Your task to perform on an android device: Open Maps and search for coffee Image 0: 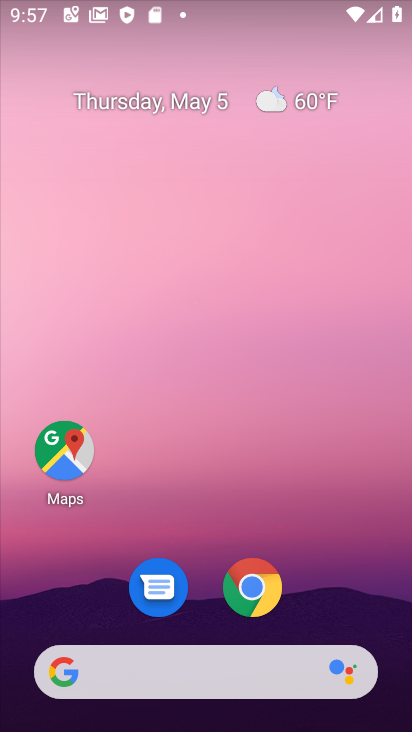
Step 0: click (72, 467)
Your task to perform on an android device: Open Maps and search for coffee Image 1: 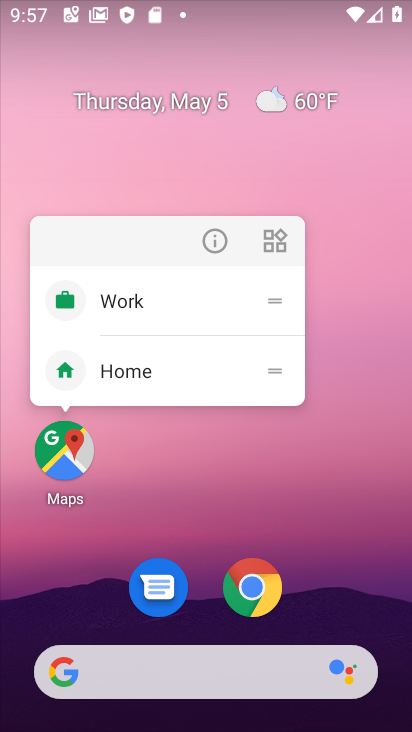
Step 1: click (58, 451)
Your task to perform on an android device: Open Maps and search for coffee Image 2: 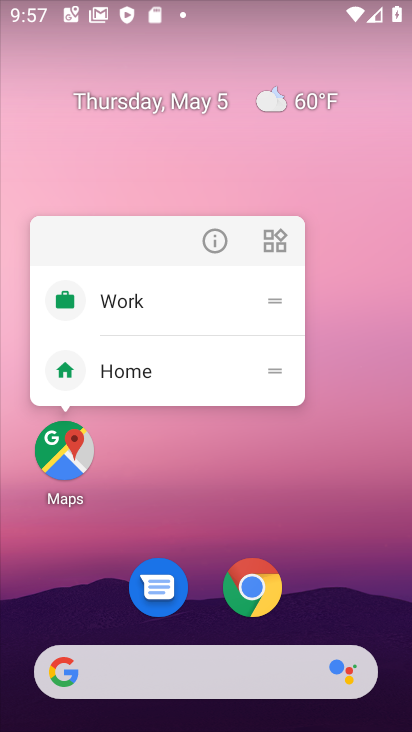
Step 2: click (58, 446)
Your task to perform on an android device: Open Maps and search for coffee Image 3: 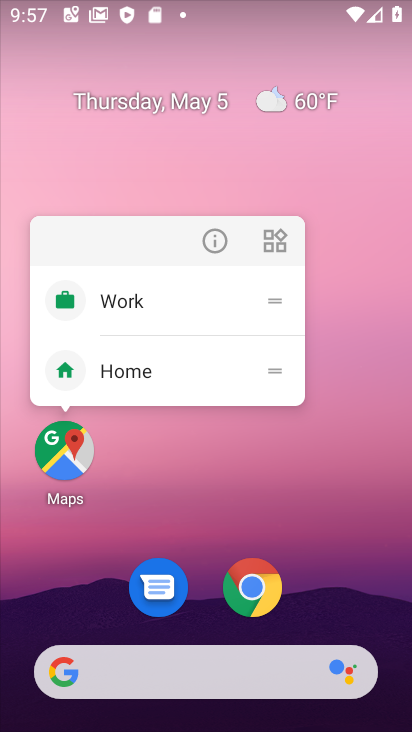
Step 3: click (53, 469)
Your task to perform on an android device: Open Maps and search for coffee Image 4: 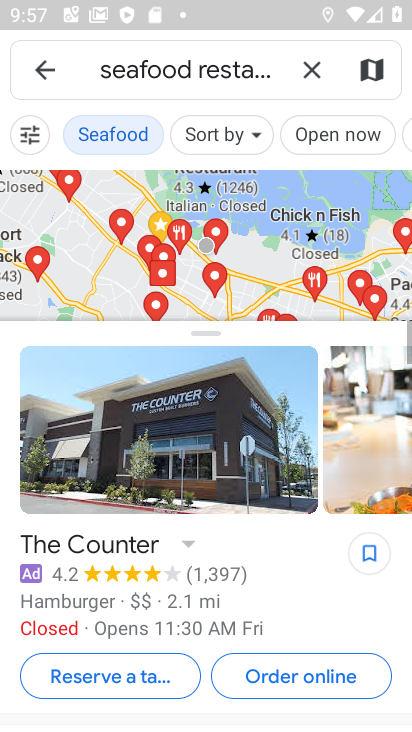
Step 4: click (308, 72)
Your task to perform on an android device: Open Maps and search for coffee Image 5: 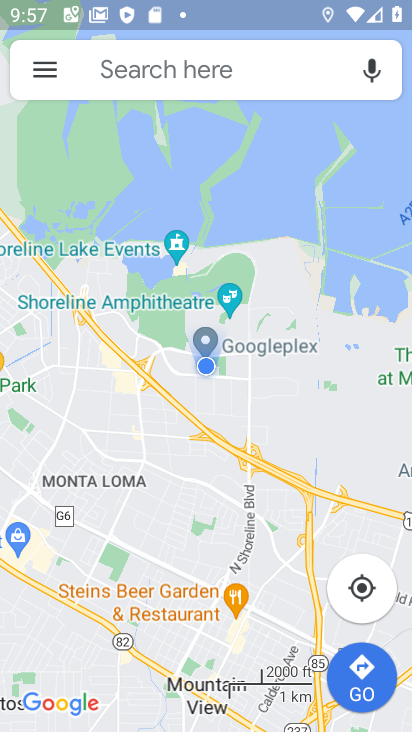
Step 5: click (262, 79)
Your task to perform on an android device: Open Maps and search for coffee Image 6: 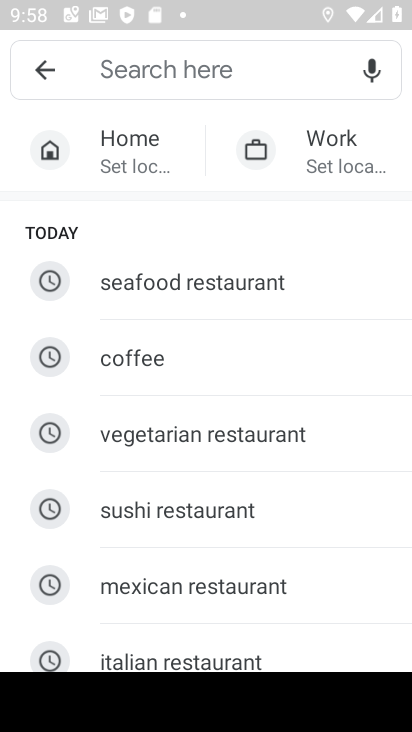
Step 6: type "coffee "
Your task to perform on an android device: Open Maps and search for coffee Image 7: 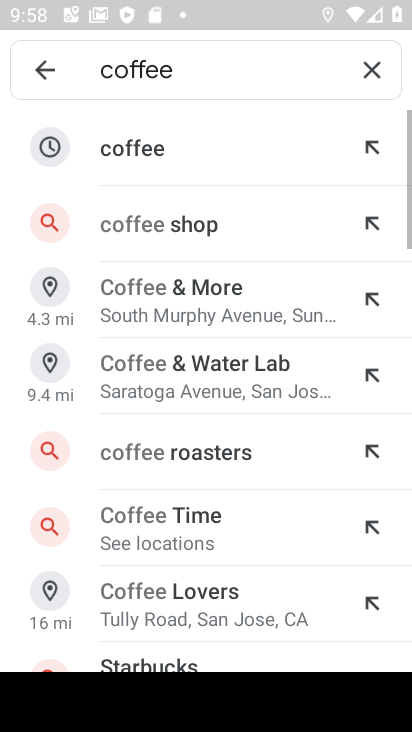
Step 7: click (152, 168)
Your task to perform on an android device: Open Maps and search for coffee Image 8: 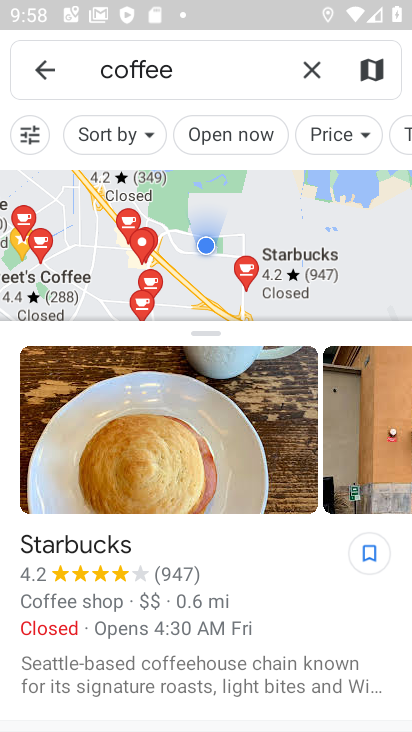
Step 8: task complete